Your task to perform on an android device: turn on notifications settings in the gmail app Image 0: 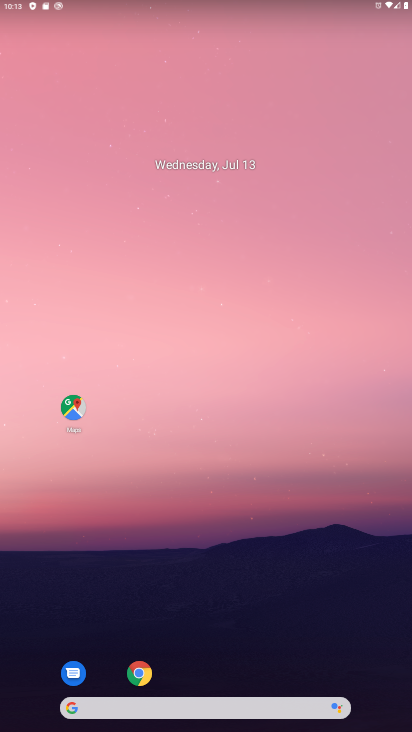
Step 0: drag from (235, 685) to (328, 145)
Your task to perform on an android device: turn on notifications settings in the gmail app Image 1: 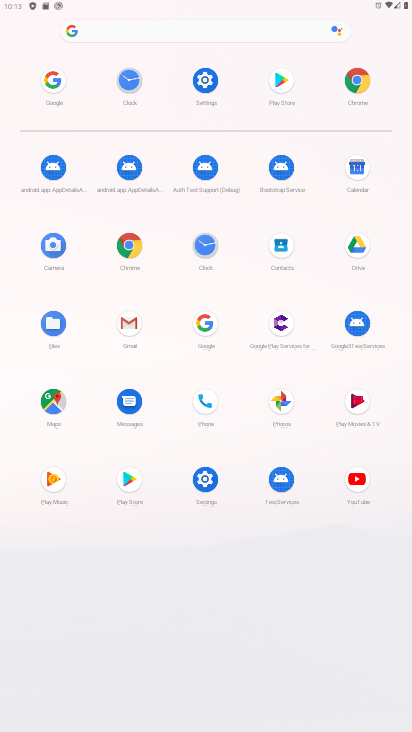
Step 1: click (124, 324)
Your task to perform on an android device: turn on notifications settings in the gmail app Image 2: 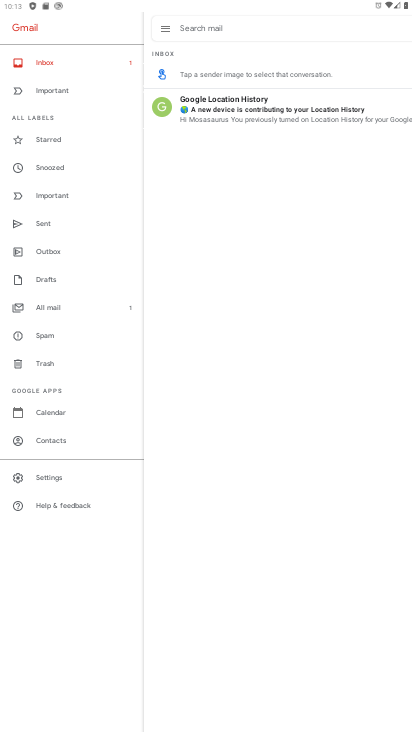
Step 2: click (57, 476)
Your task to perform on an android device: turn on notifications settings in the gmail app Image 3: 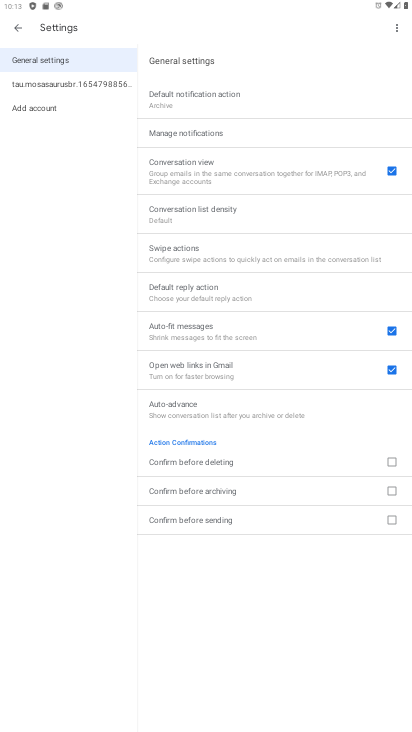
Step 3: click (156, 135)
Your task to perform on an android device: turn on notifications settings in the gmail app Image 4: 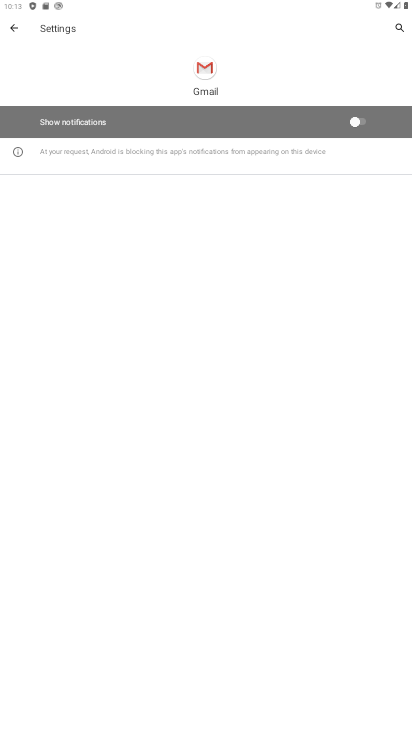
Step 4: click (362, 122)
Your task to perform on an android device: turn on notifications settings in the gmail app Image 5: 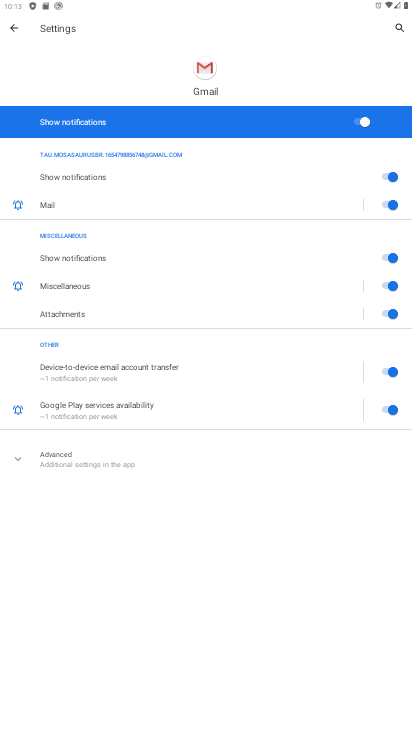
Step 5: task complete